Your task to perform on an android device: Do I have any events today? Image 0: 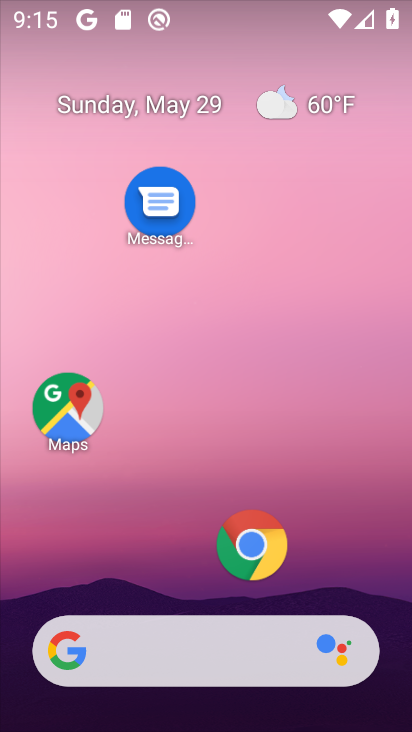
Step 0: drag from (197, 565) to (253, 174)
Your task to perform on an android device: Do I have any events today? Image 1: 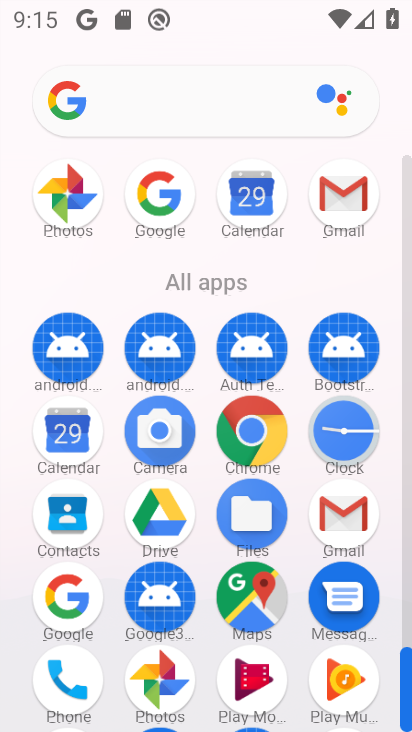
Step 1: click (254, 204)
Your task to perform on an android device: Do I have any events today? Image 2: 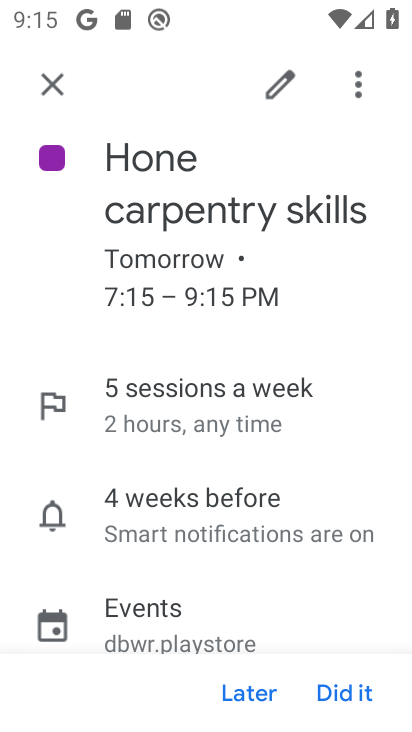
Step 2: click (68, 78)
Your task to perform on an android device: Do I have any events today? Image 3: 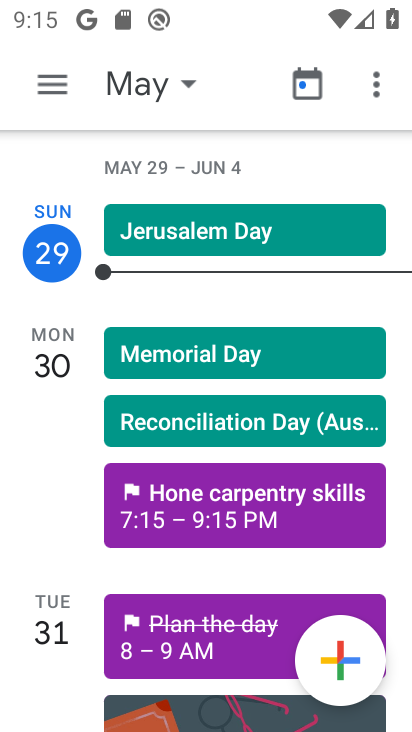
Step 3: click (205, 237)
Your task to perform on an android device: Do I have any events today? Image 4: 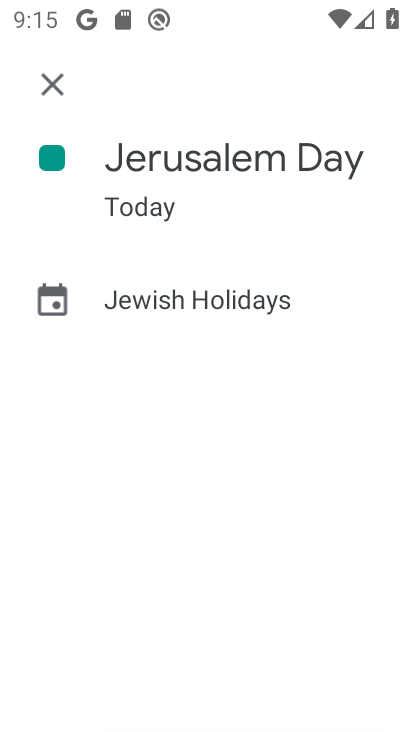
Step 4: task complete